Your task to perform on an android device: read, delete, or share a saved page in the chrome app Image 0: 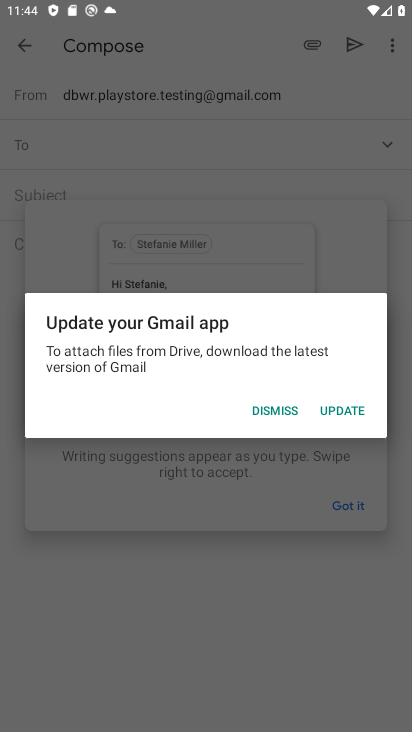
Step 0: press home button
Your task to perform on an android device: read, delete, or share a saved page in the chrome app Image 1: 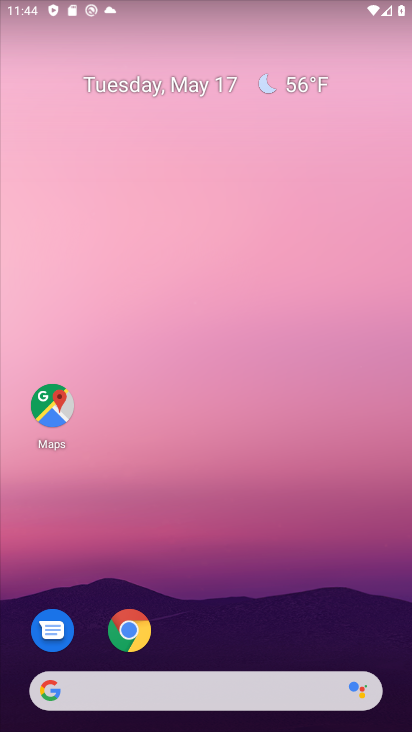
Step 1: click (130, 630)
Your task to perform on an android device: read, delete, or share a saved page in the chrome app Image 2: 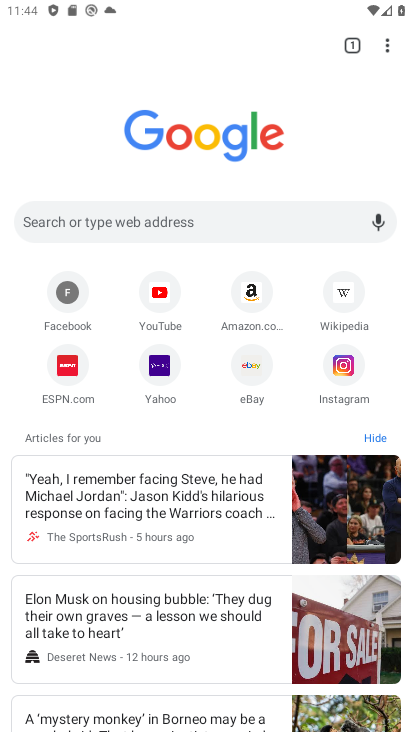
Step 2: click (387, 48)
Your task to perform on an android device: read, delete, or share a saved page in the chrome app Image 3: 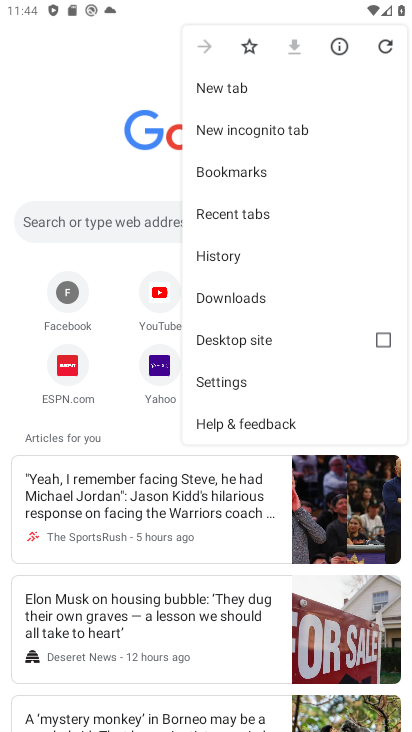
Step 3: click (222, 382)
Your task to perform on an android device: read, delete, or share a saved page in the chrome app Image 4: 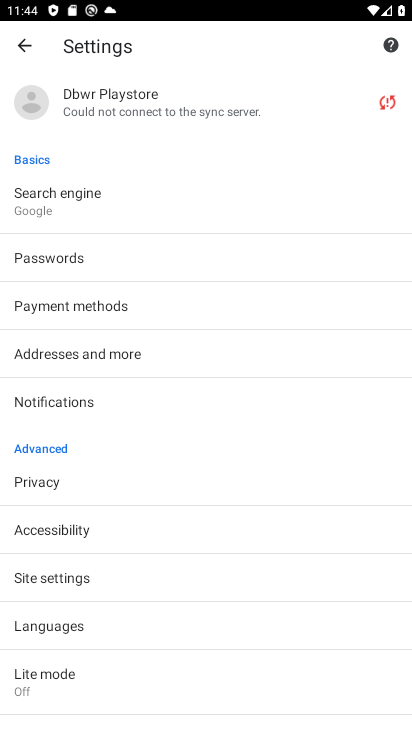
Step 4: click (23, 45)
Your task to perform on an android device: read, delete, or share a saved page in the chrome app Image 5: 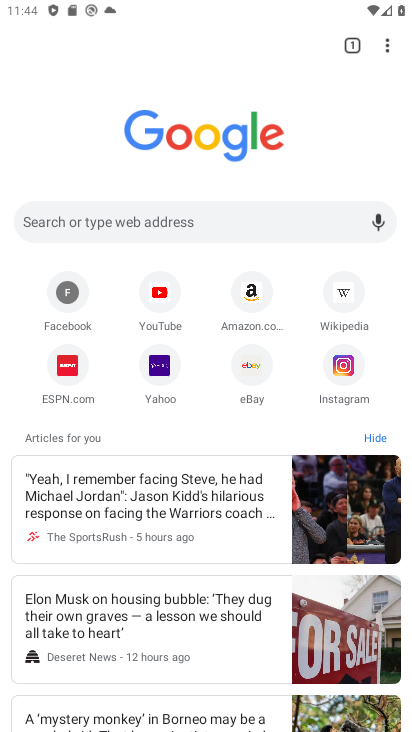
Step 5: click (391, 43)
Your task to perform on an android device: read, delete, or share a saved page in the chrome app Image 6: 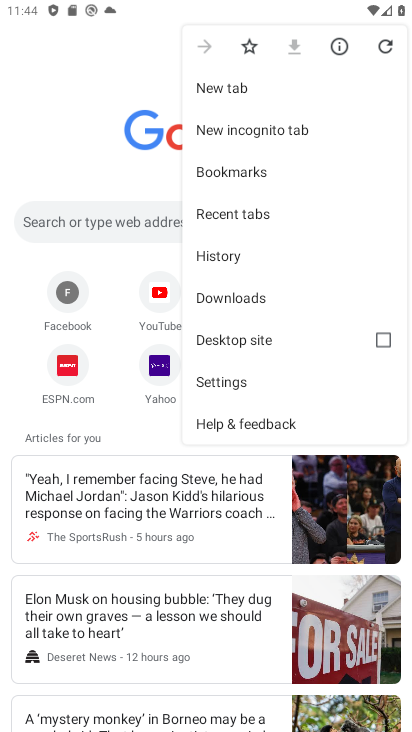
Step 6: click (225, 377)
Your task to perform on an android device: read, delete, or share a saved page in the chrome app Image 7: 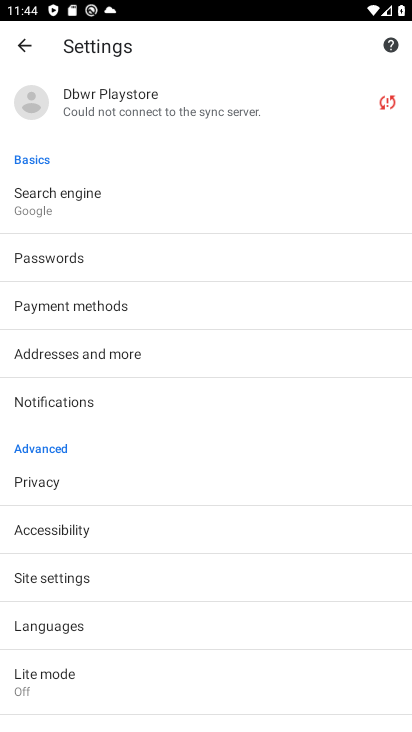
Step 7: drag from (53, 619) to (64, 421)
Your task to perform on an android device: read, delete, or share a saved page in the chrome app Image 8: 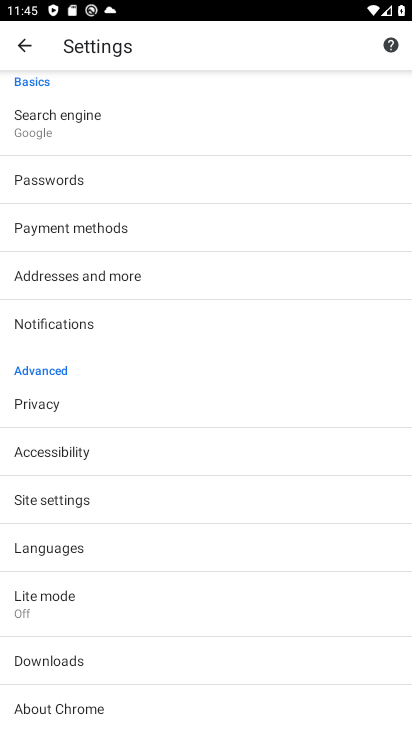
Step 8: drag from (129, 296) to (138, 623)
Your task to perform on an android device: read, delete, or share a saved page in the chrome app Image 9: 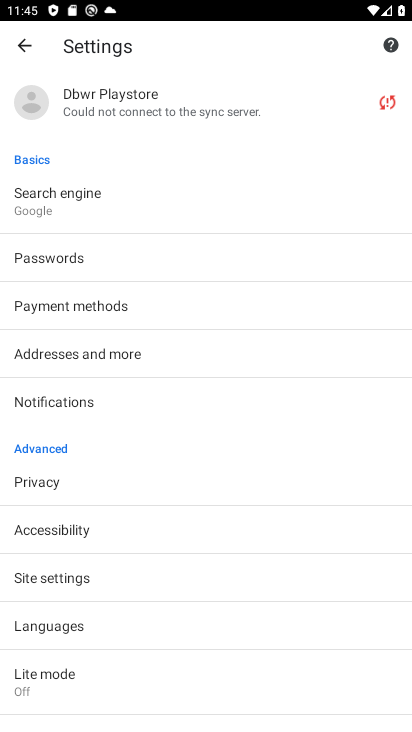
Step 9: click (22, 40)
Your task to perform on an android device: read, delete, or share a saved page in the chrome app Image 10: 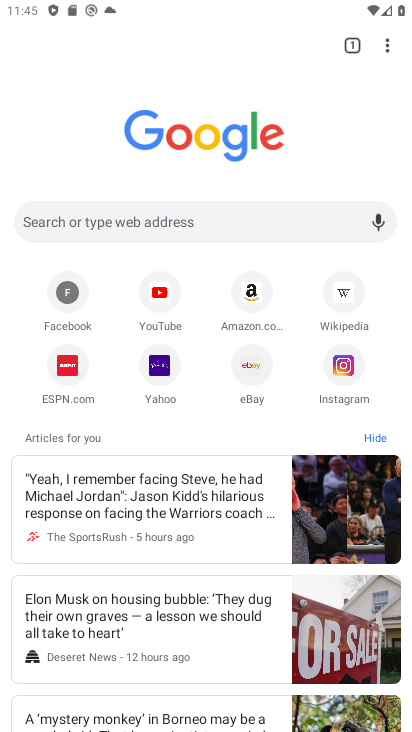
Step 10: click (387, 48)
Your task to perform on an android device: read, delete, or share a saved page in the chrome app Image 11: 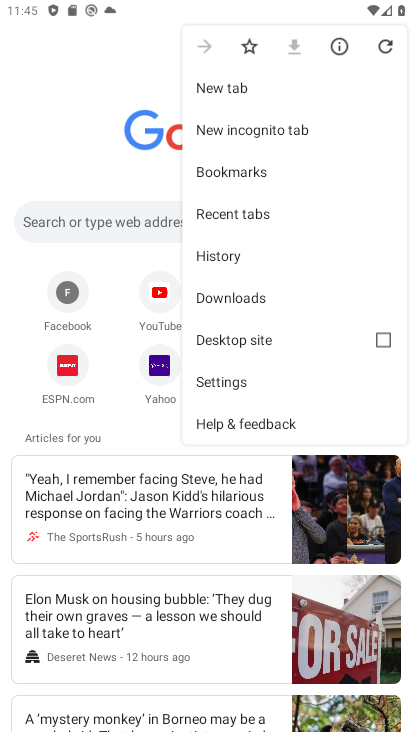
Step 11: click (218, 295)
Your task to perform on an android device: read, delete, or share a saved page in the chrome app Image 12: 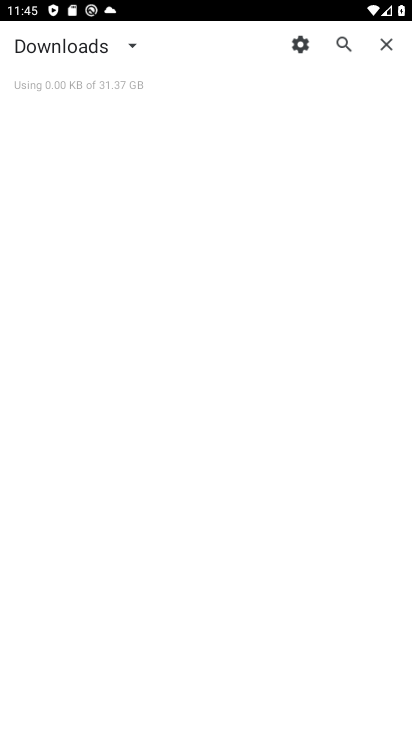
Step 12: click (131, 45)
Your task to perform on an android device: read, delete, or share a saved page in the chrome app Image 13: 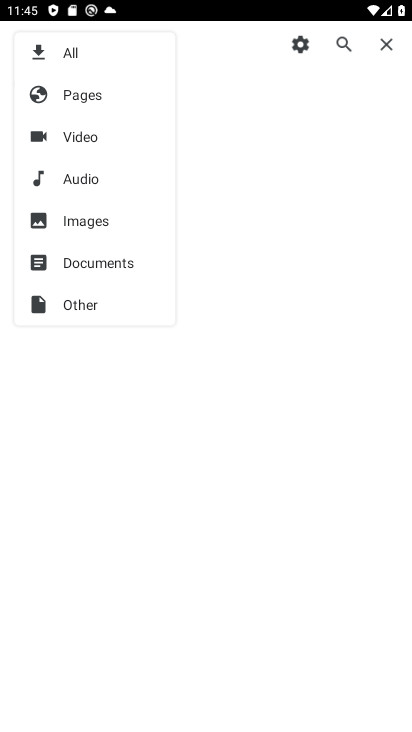
Step 13: click (82, 94)
Your task to perform on an android device: read, delete, or share a saved page in the chrome app Image 14: 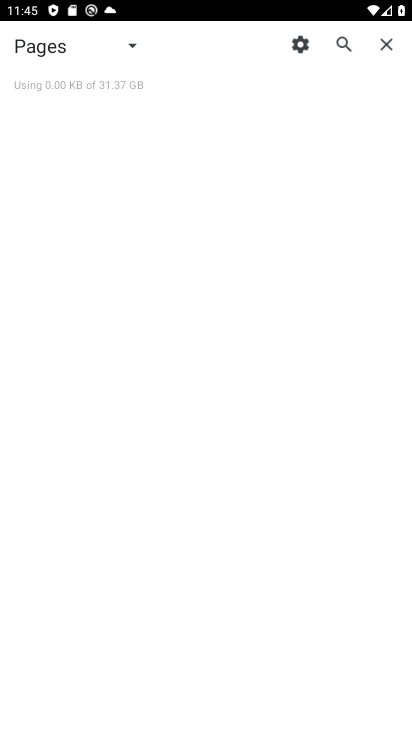
Step 14: task complete